Your task to perform on an android device: Open sound settings Image 0: 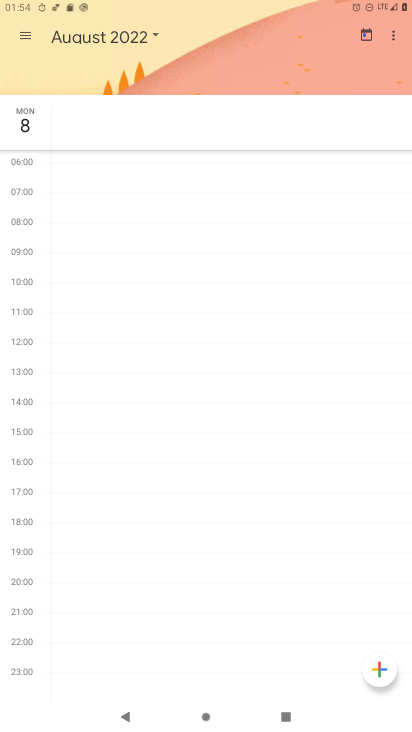
Step 0: click (71, 389)
Your task to perform on an android device: Open sound settings Image 1: 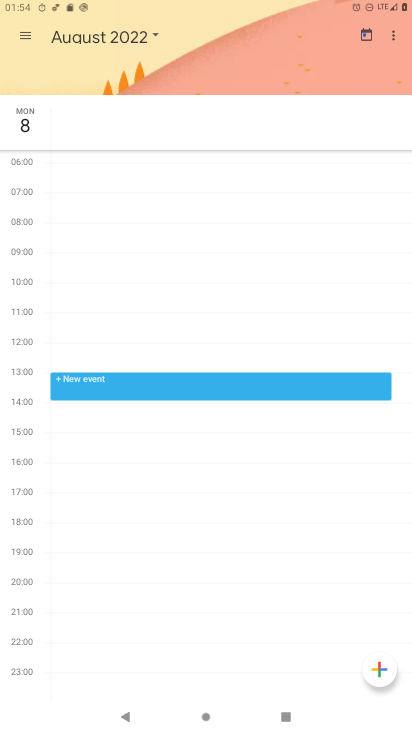
Step 1: press home button
Your task to perform on an android device: Open sound settings Image 2: 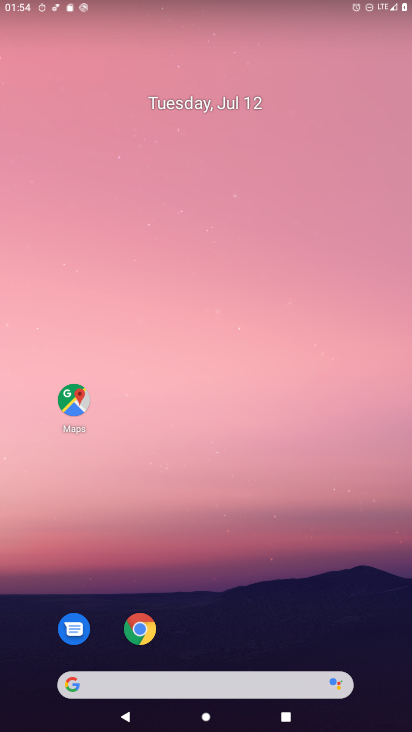
Step 2: drag from (32, 680) to (293, 61)
Your task to perform on an android device: Open sound settings Image 3: 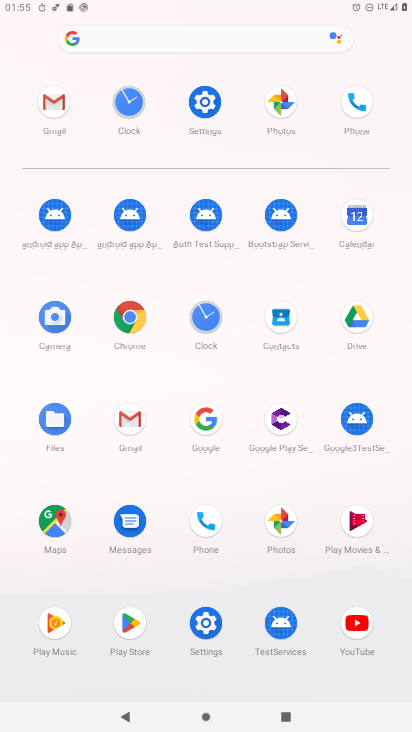
Step 3: click (208, 630)
Your task to perform on an android device: Open sound settings Image 4: 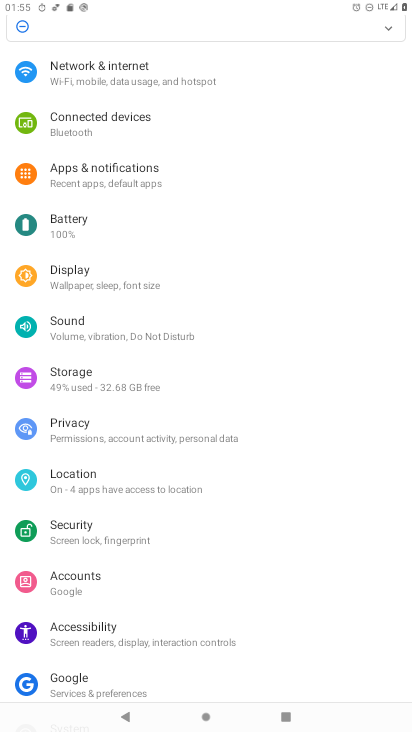
Step 4: click (97, 341)
Your task to perform on an android device: Open sound settings Image 5: 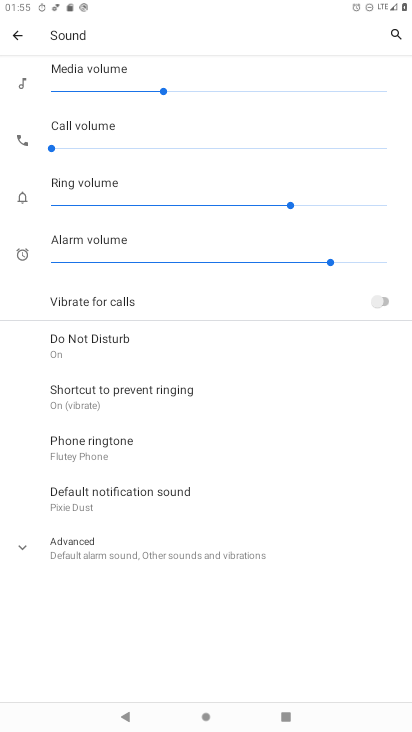
Step 5: task complete